Your task to perform on an android device: clear history in the chrome app Image 0: 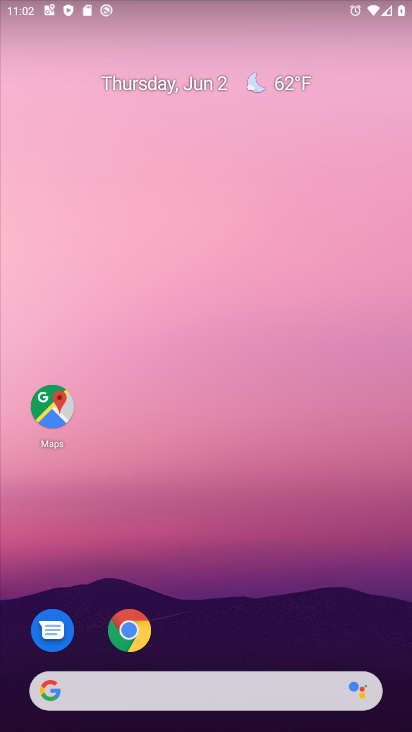
Step 0: press home button
Your task to perform on an android device: clear history in the chrome app Image 1: 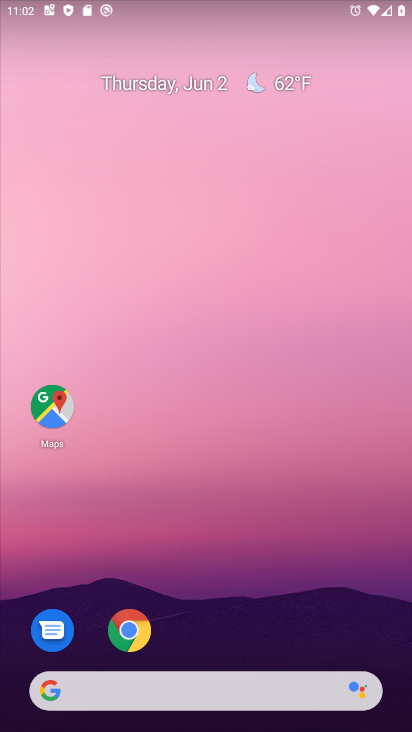
Step 1: click (118, 630)
Your task to perform on an android device: clear history in the chrome app Image 2: 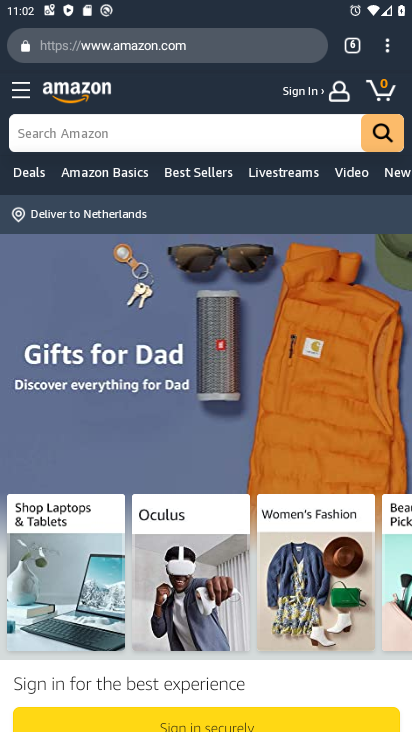
Step 2: drag from (383, 53) to (245, 250)
Your task to perform on an android device: clear history in the chrome app Image 3: 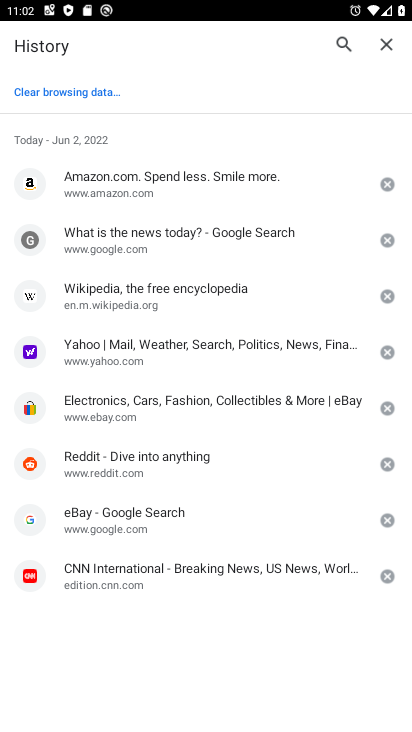
Step 3: click (69, 91)
Your task to perform on an android device: clear history in the chrome app Image 4: 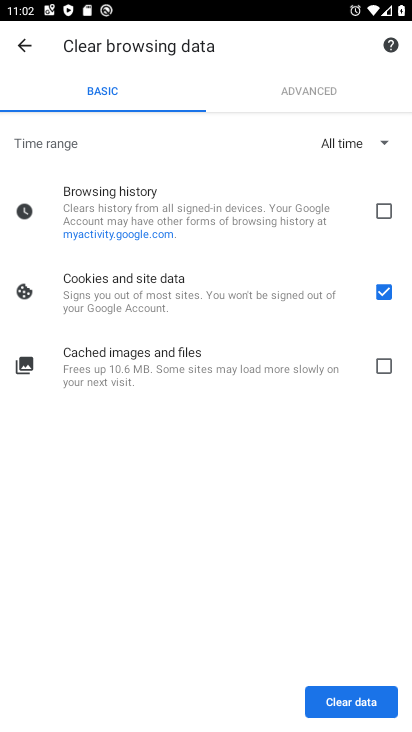
Step 4: click (387, 205)
Your task to perform on an android device: clear history in the chrome app Image 5: 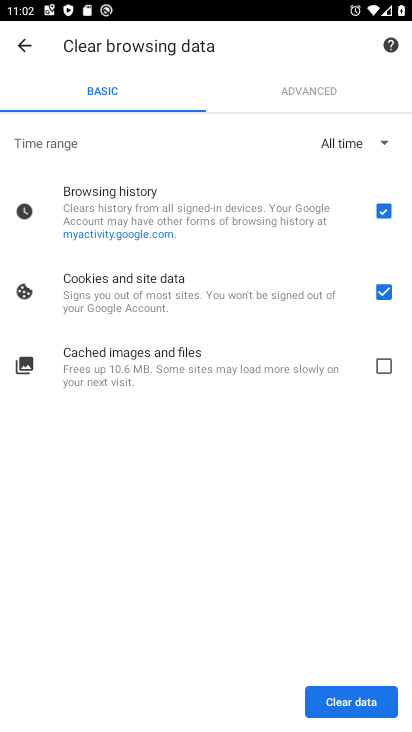
Step 5: click (382, 363)
Your task to perform on an android device: clear history in the chrome app Image 6: 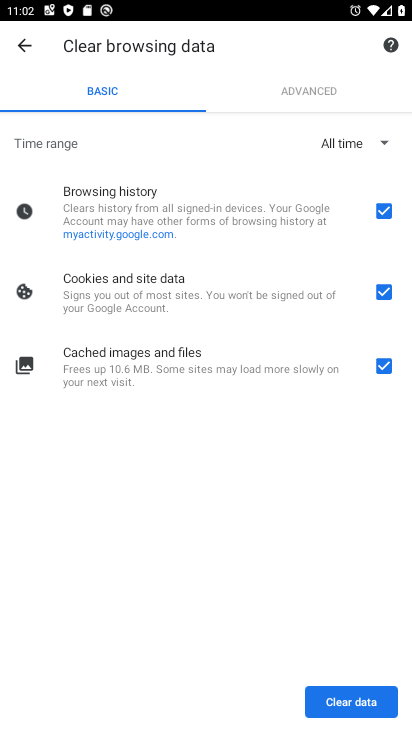
Step 6: click (338, 706)
Your task to perform on an android device: clear history in the chrome app Image 7: 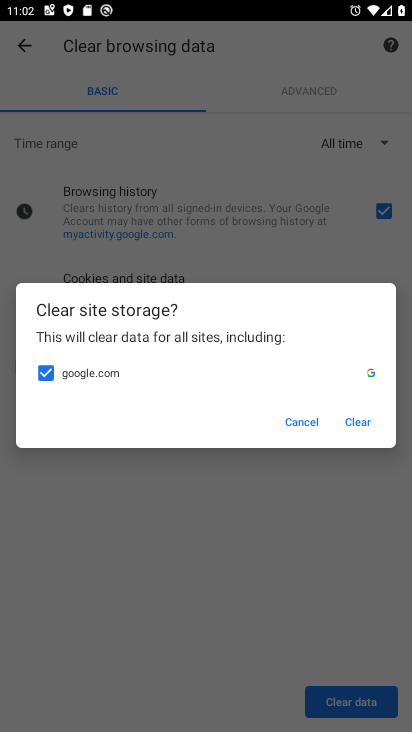
Step 7: click (368, 421)
Your task to perform on an android device: clear history in the chrome app Image 8: 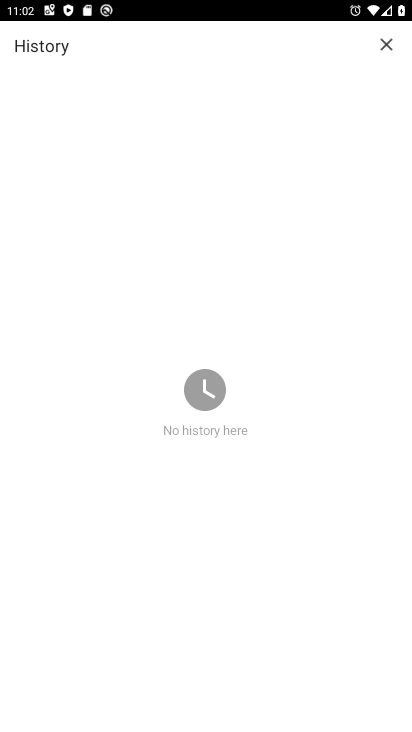
Step 8: task complete